Your task to perform on an android device: allow cookies in the chrome app Image 0: 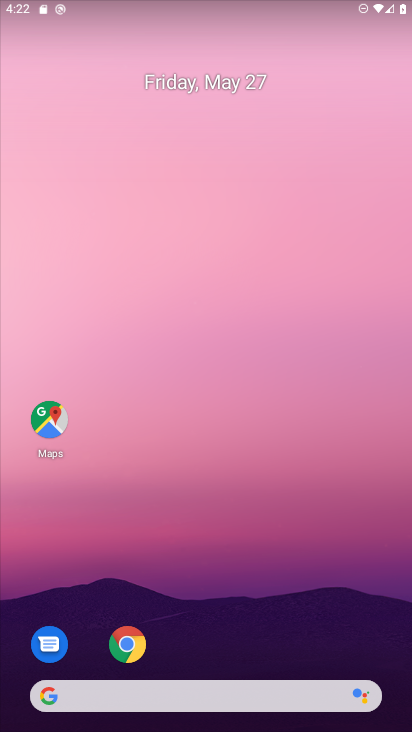
Step 0: click (126, 648)
Your task to perform on an android device: allow cookies in the chrome app Image 1: 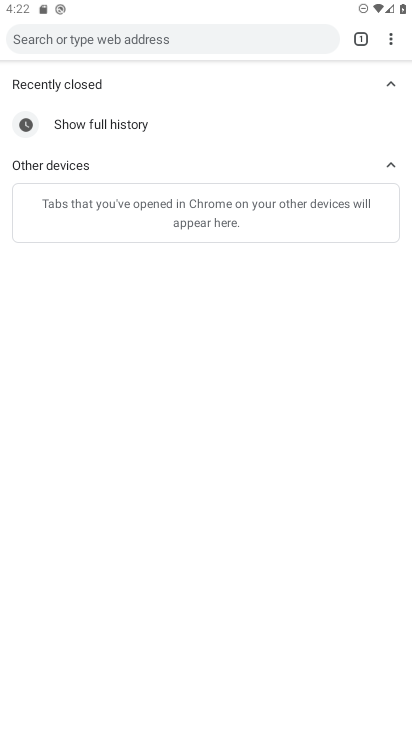
Step 1: click (394, 34)
Your task to perform on an android device: allow cookies in the chrome app Image 2: 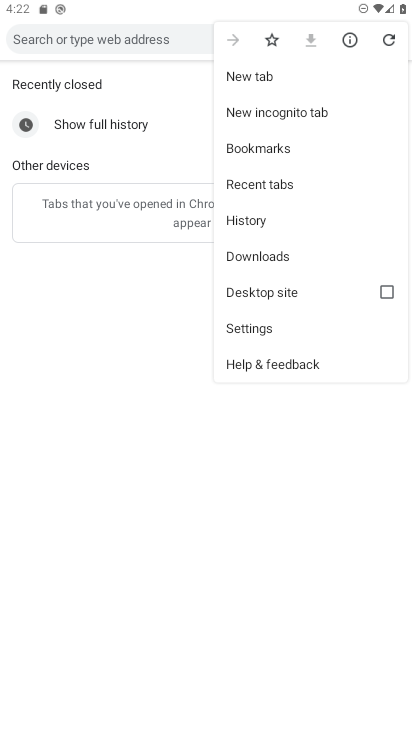
Step 2: click (259, 342)
Your task to perform on an android device: allow cookies in the chrome app Image 3: 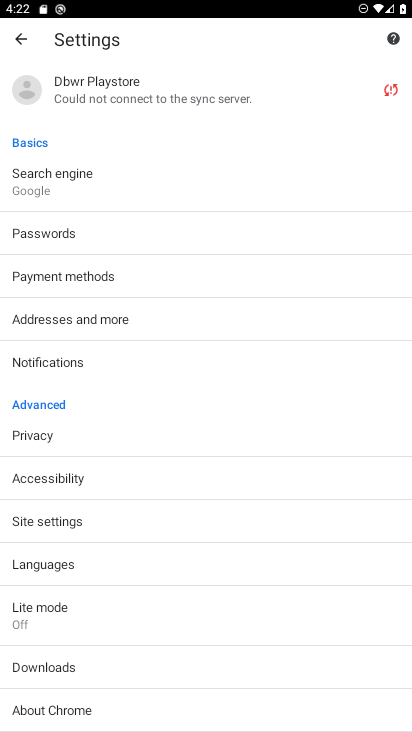
Step 3: click (65, 519)
Your task to perform on an android device: allow cookies in the chrome app Image 4: 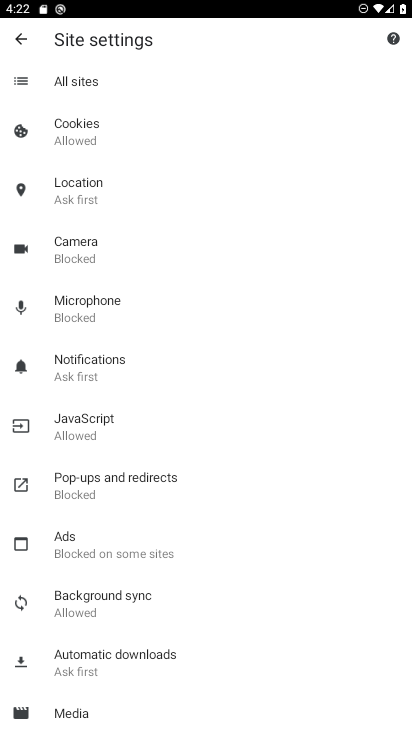
Step 4: click (100, 120)
Your task to perform on an android device: allow cookies in the chrome app Image 5: 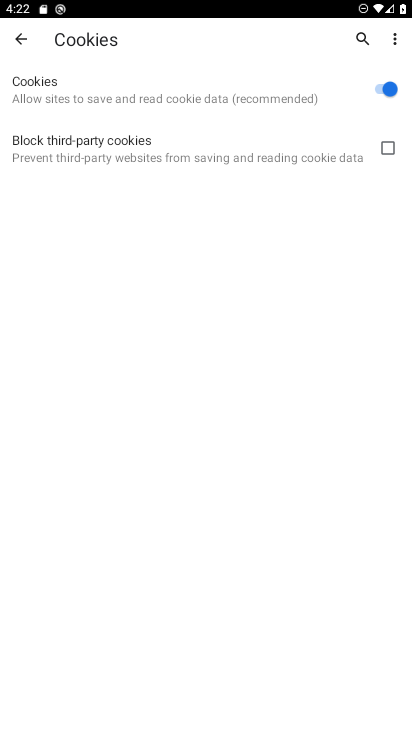
Step 5: task complete